Your task to perform on an android device: delete browsing data in the chrome app Image 0: 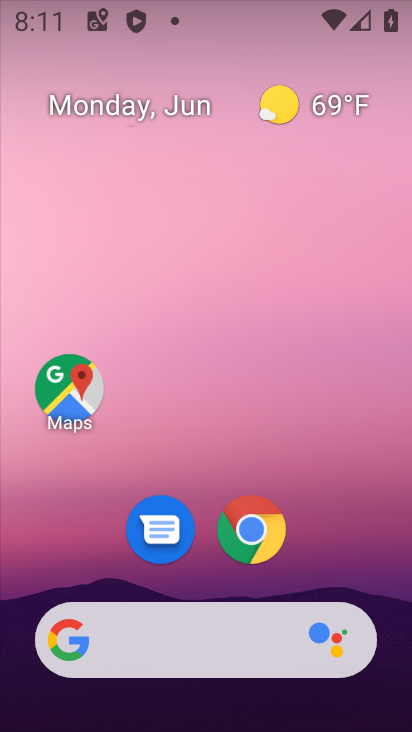
Step 0: click (254, 524)
Your task to perform on an android device: delete browsing data in the chrome app Image 1: 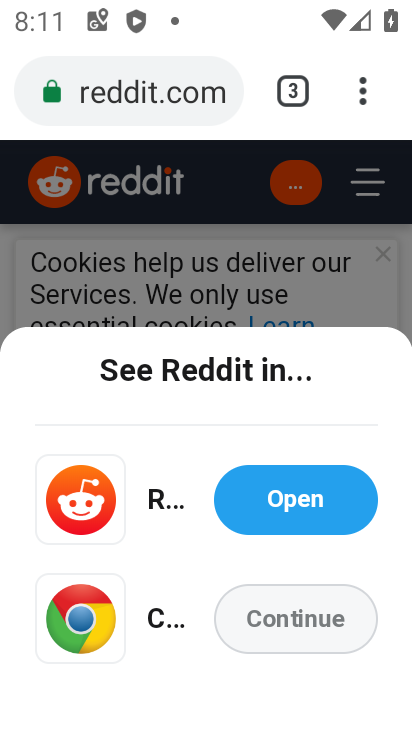
Step 1: click (368, 85)
Your task to perform on an android device: delete browsing data in the chrome app Image 2: 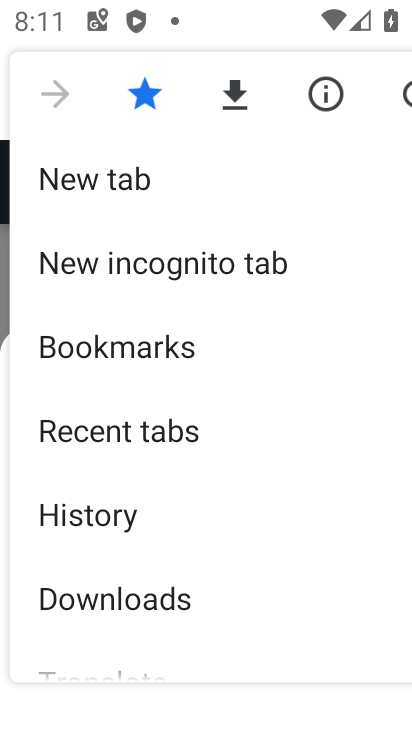
Step 2: drag from (328, 604) to (317, 76)
Your task to perform on an android device: delete browsing data in the chrome app Image 3: 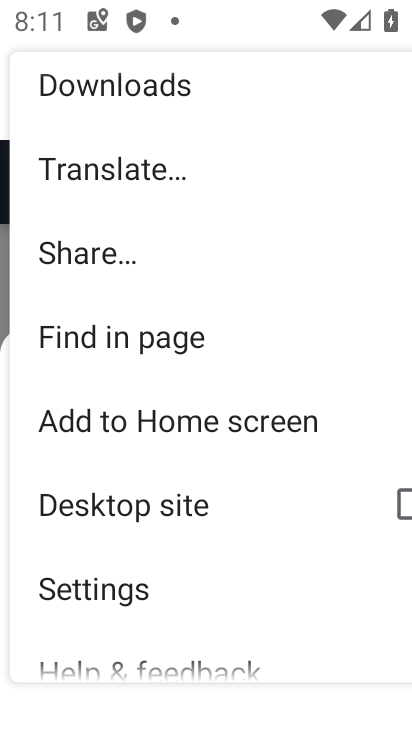
Step 3: click (117, 617)
Your task to perform on an android device: delete browsing data in the chrome app Image 4: 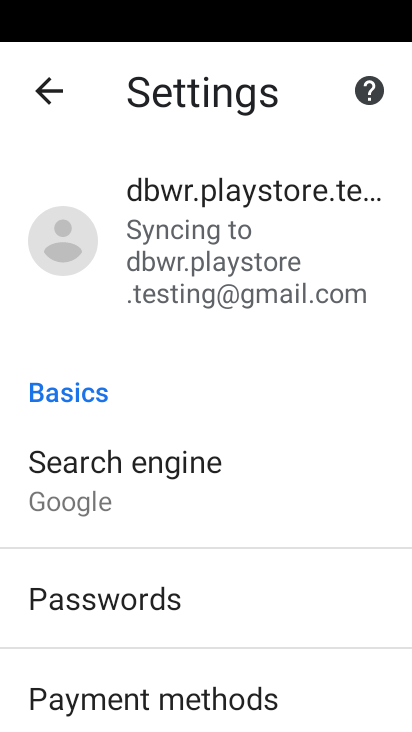
Step 4: drag from (249, 626) to (267, 123)
Your task to perform on an android device: delete browsing data in the chrome app Image 5: 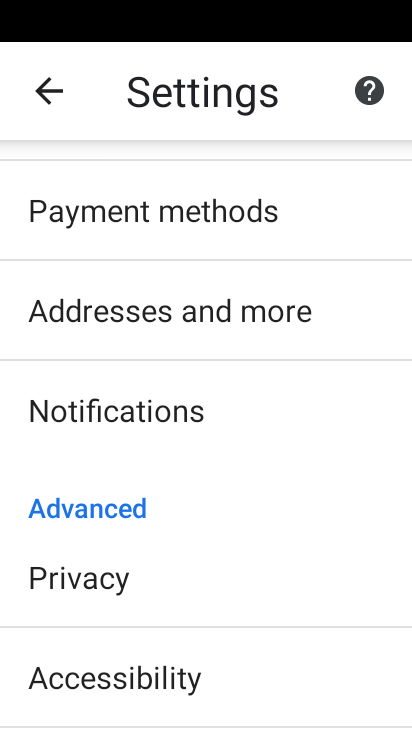
Step 5: drag from (252, 633) to (246, 163)
Your task to perform on an android device: delete browsing data in the chrome app Image 6: 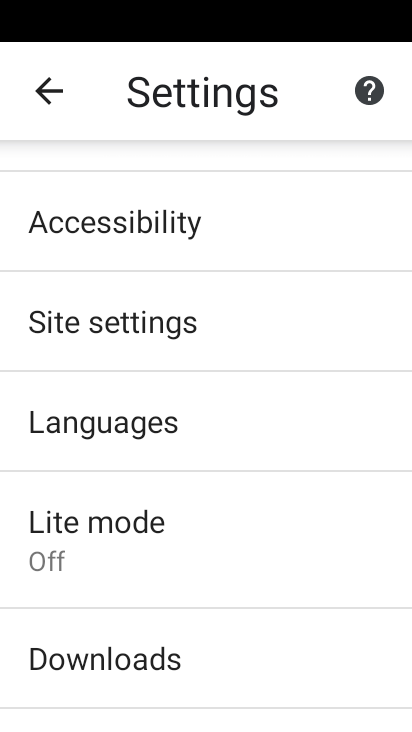
Step 6: drag from (157, 190) to (158, 452)
Your task to perform on an android device: delete browsing data in the chrome app Image 7: 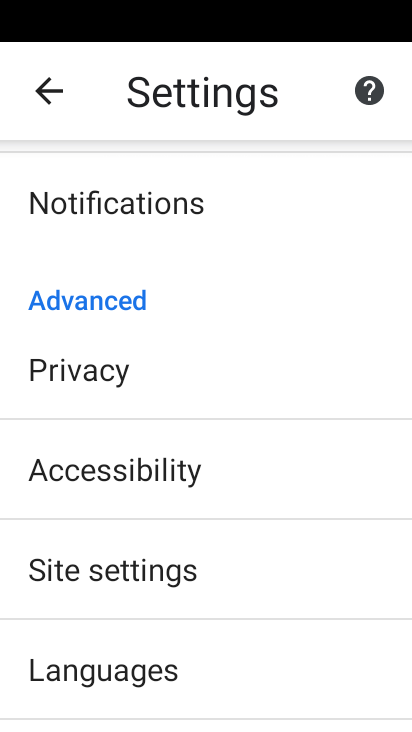
Step 7: click (147, 372)
Your task to perform on an android device: delete browsing data in the chrome app Image 8: 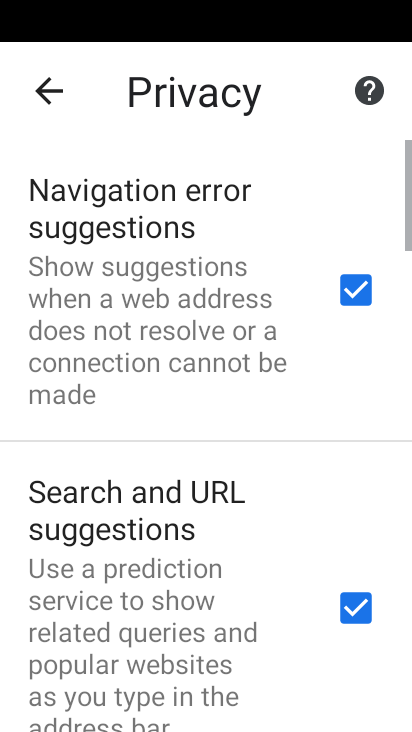
Step 8: drag from (210, 612) to (222, 113)
Your task to perform on an android device: delete browsing data in the chrome app Image 9: 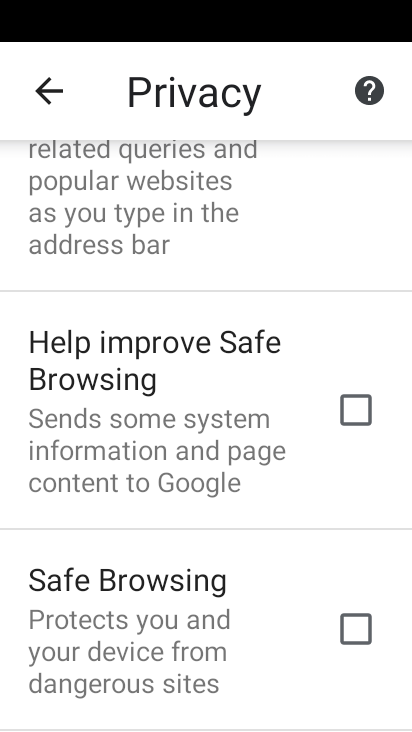
Step 9: drag from (242, 631) to (263, 203)
Your task to perform on an android device: delete browsing data in the chrome app Image 10: 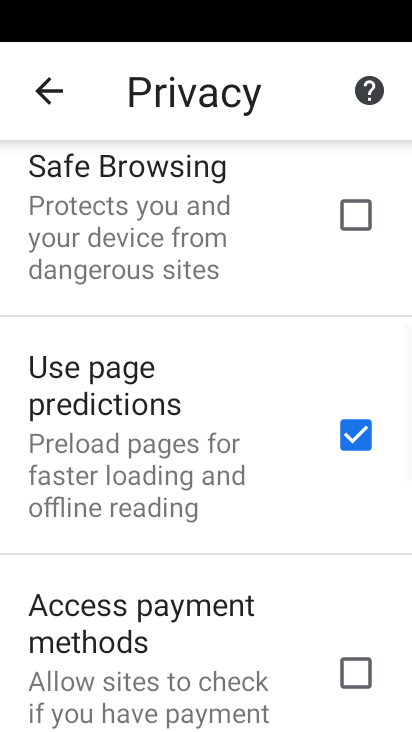
Step 10: drag from (193, 605) to (192, 123)
Your task to perform on an android device: delete browsing data in the chrome app Image 11: 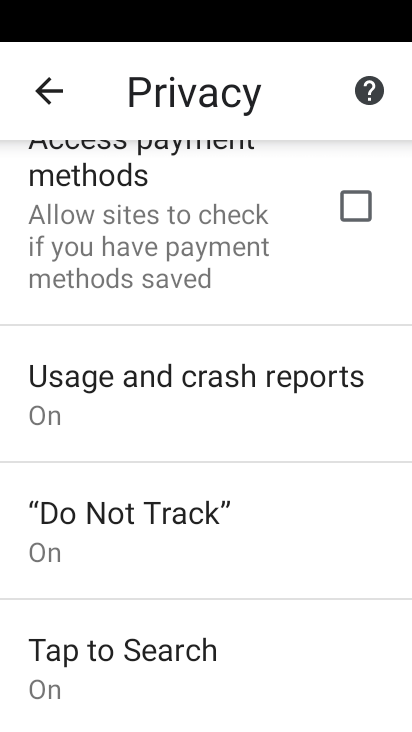
Step 11: drag from (218, 572) to (225, 225)
Your task to perform on an android device: delete browsing data in the chrome app Image 12: 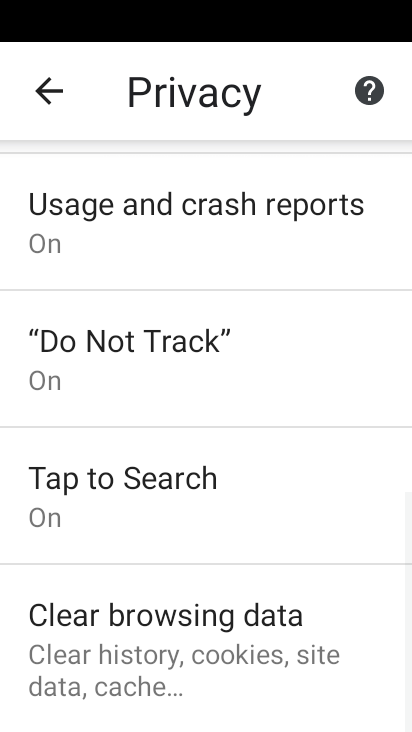
Step 12: click (195, 640)
Your task to perform on an android device: delete browsing data in the chrome app Image 13: 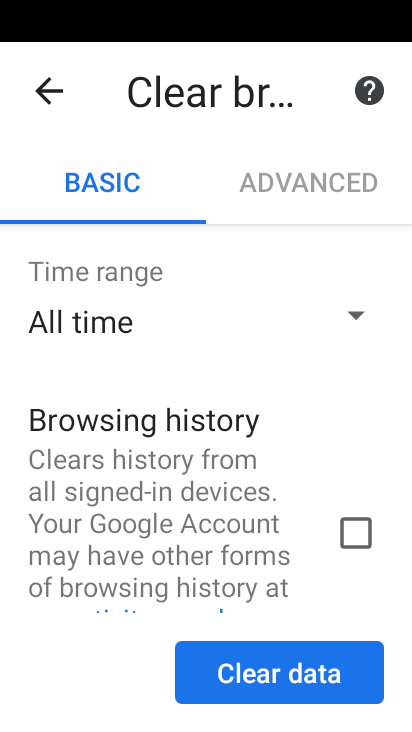
Step 13: drag from (152, 289) to (115, 607)
Your task to perform on an android device: delete browsing data in the chrome app Image 14: 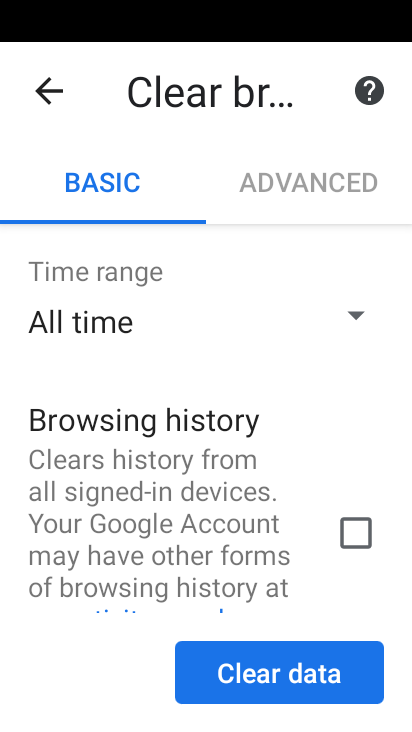
Step 14: drag from (106, 637) to (174, 218)
Your task to perform on an android device: delete browsing data in the chrome app Image 15: 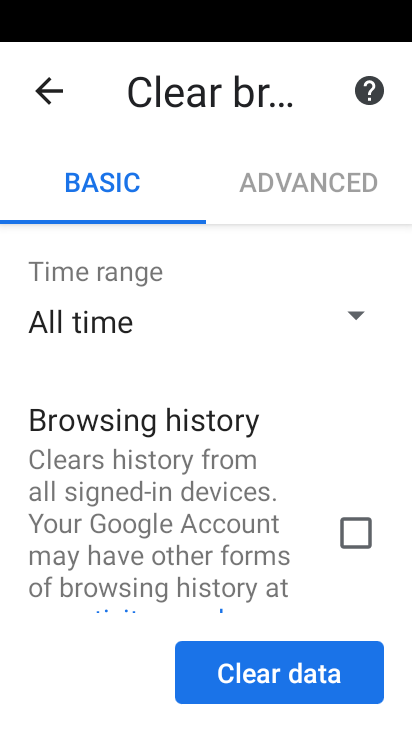
Step 15: drag from (223, 553) to (242, 248)
Your task to perform on an android device: delete browsing data in the chrome app Image 16: 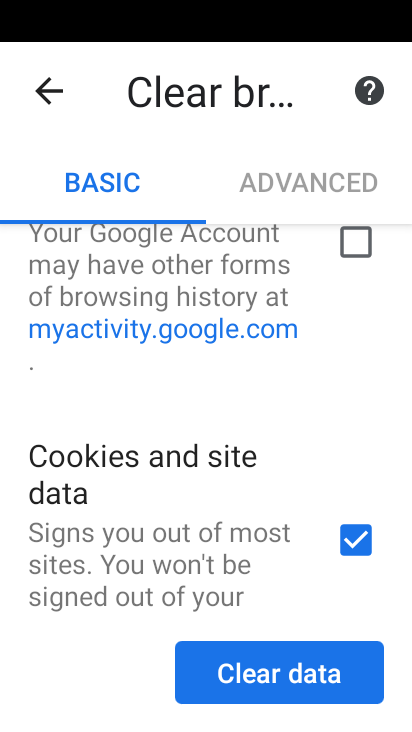
Step 16: drag from (216, 597) to (251, 231)
Your task to perform on an android device: delete browsing data in the chrome app Image 17: 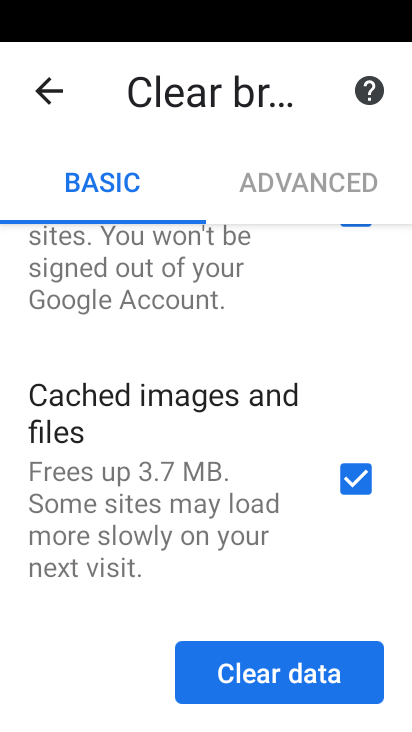
Step 17: drag from (225, 583) to (215, 265)
Your task to perform on an android device: delete browsing data in the chrome app Image 18: 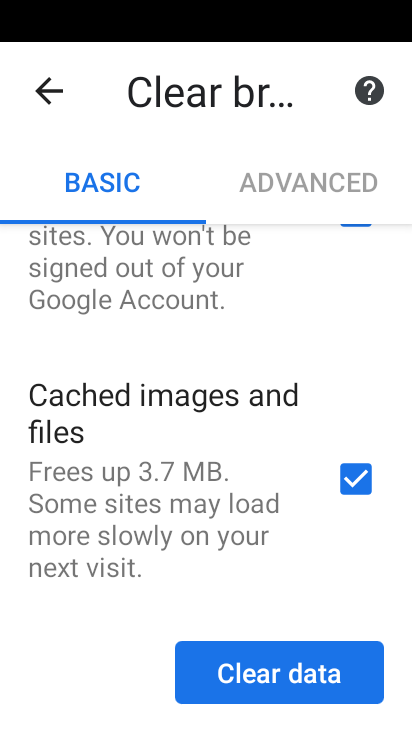
Step 18: drag from (217, 254) to (180, 721)
Your task to perform on an android device: delete browsing data in the chrome app Image 19: 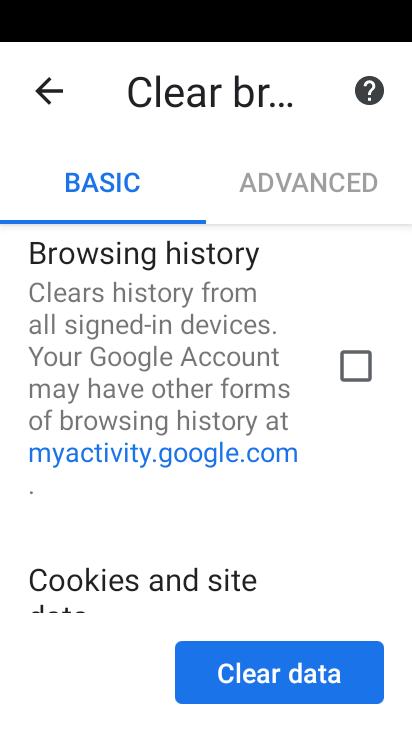
Step 19: drag from (212, 291) to (116, 630)
Your task to perform on an android device: delete browsing data in the chrome app Image 20: 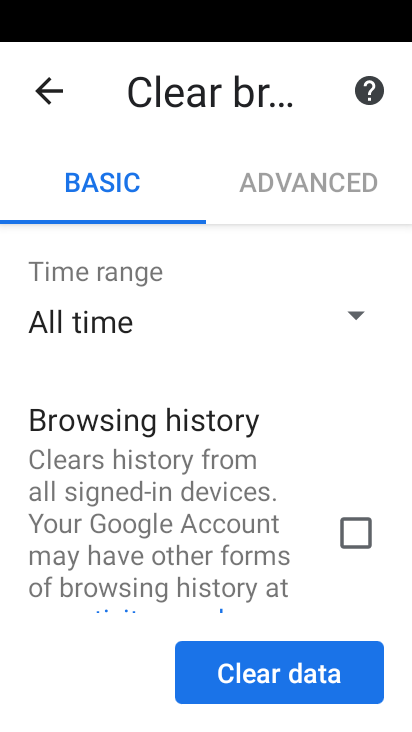
Step 20: click (362, 304)
Your task to perform on an android device: delete browsing data in the chrome app Image 21: 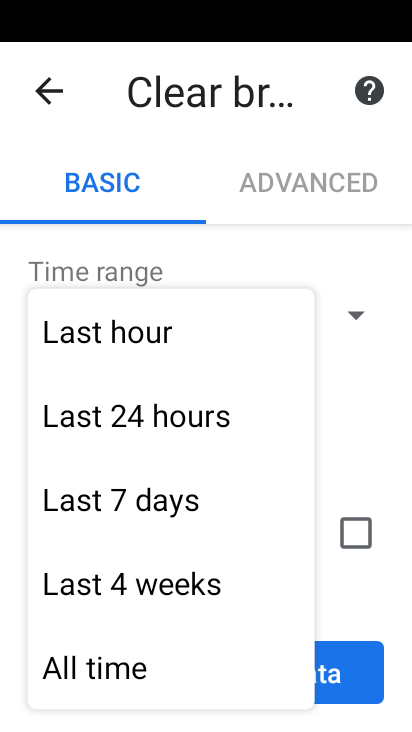
Step 21: click (392, 277)
Your task to perform on an android device: delete browsing data in the chrome app Image 22: 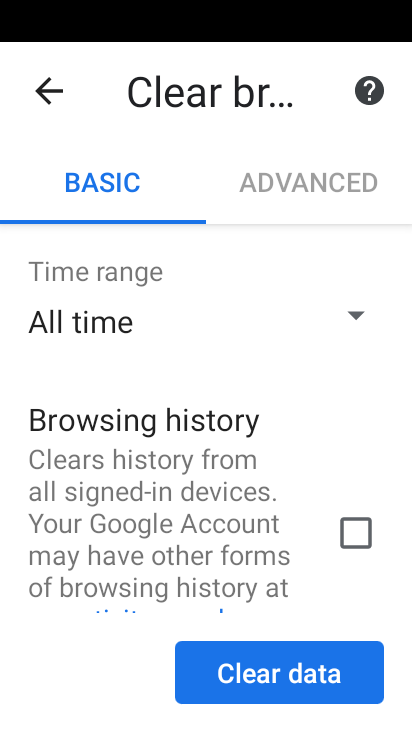
Step 22: click (299, 169)
Your task to perform on an android device: delete browsing data in the chrome app Image 23: 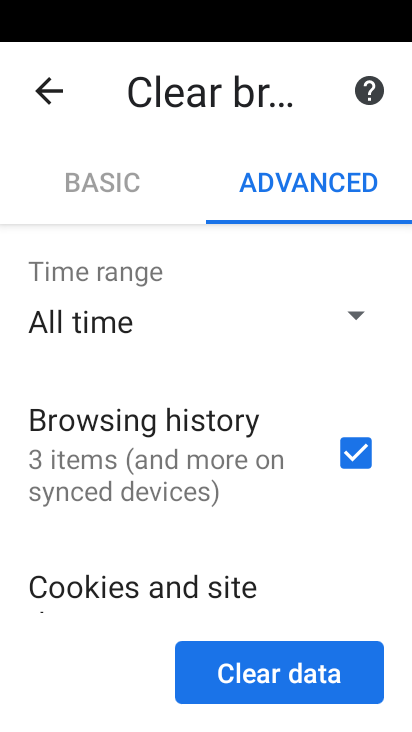
Step 23: click (105, 182)
Your task to perform on an android device: delete browsing data in the chrome app Image 24: 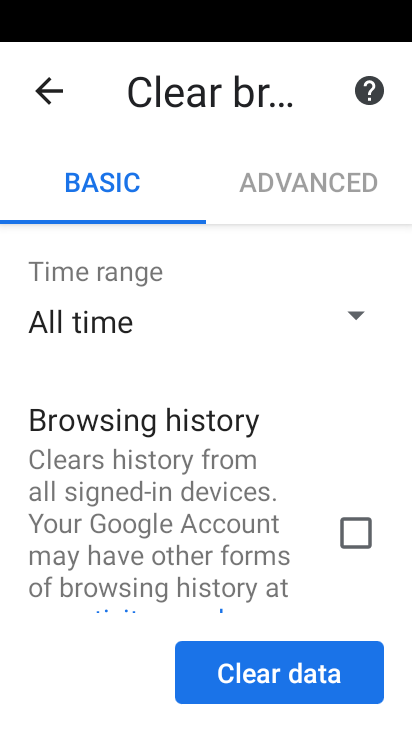
Step 24: task complete